Your task to perform on an android device: What's on my calendar today? Image 0: 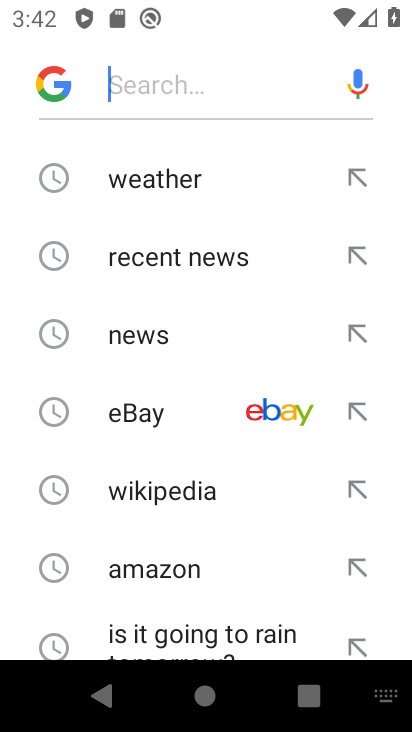
Step 0: press home button
Your task to perform on an android device: What's on my calendar today? Image 1: 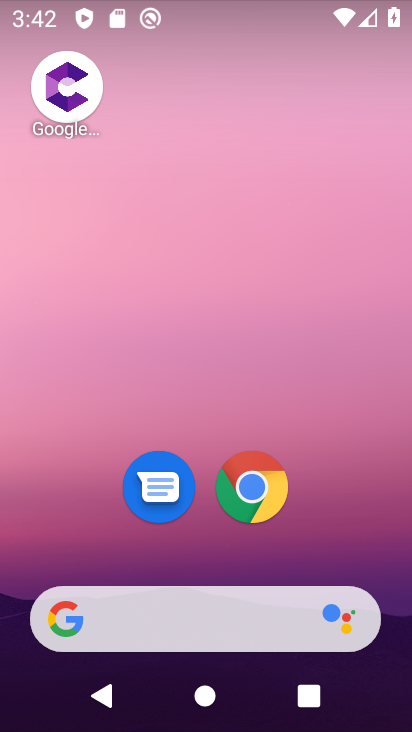
Step 1: drag from (203, 475) to (330, 5)
Your task to perform on an android device: What's on my calendar today? Image 2: 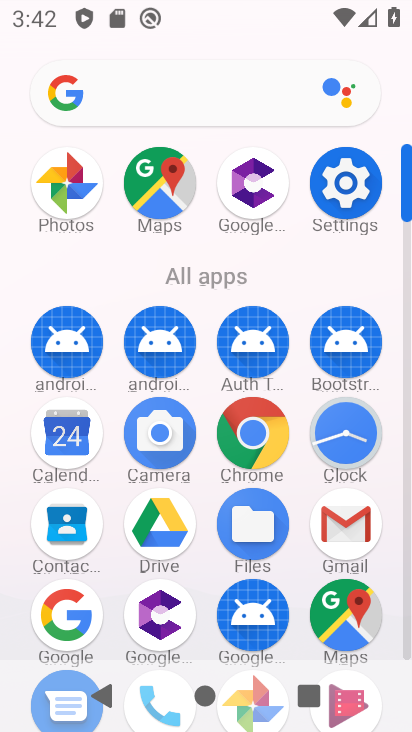
Step 2: click (65, 445)
Your task to perform on an android device: What's on my calendar today? Image 3: 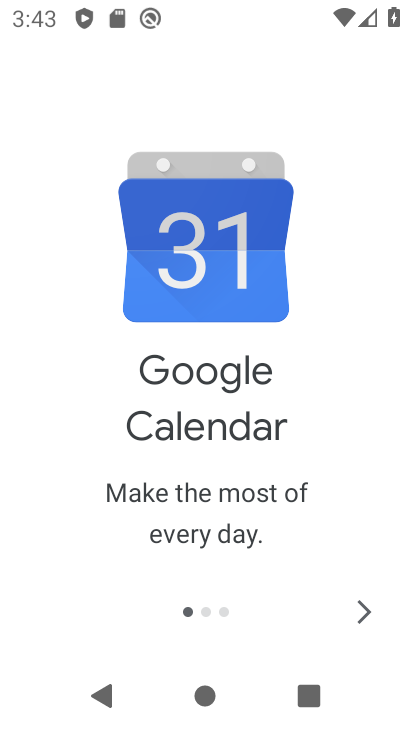
Step 3: click (366, 611)
Your task to perform on an android device: What's on my calendar today? Image 4: 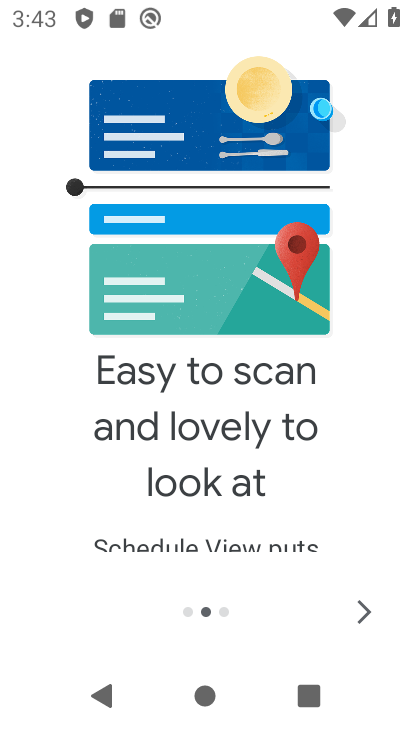
Step 4: click (366, 611)
Your task to perform on an android device: What's on my calendar today? Image 5: 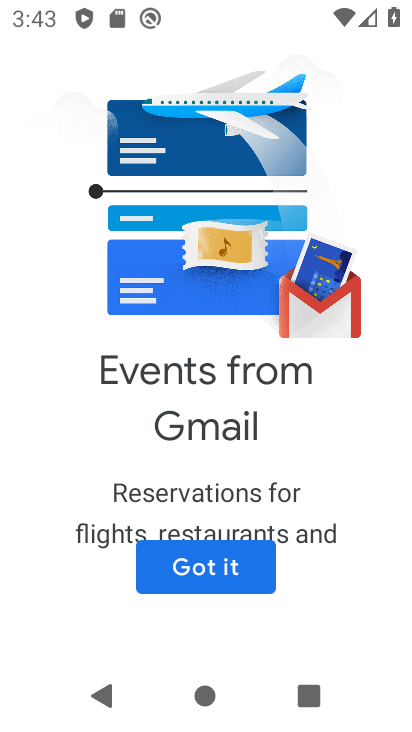
Step 5: click (209, 570)
Your task to perform on an android device: What's on my calendar today? Image 6: 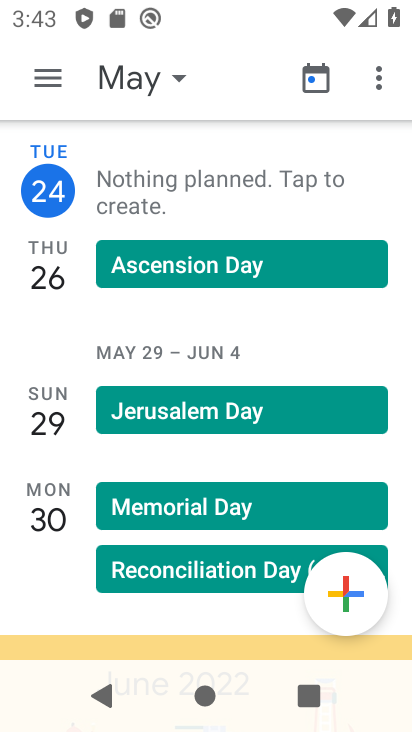
Step 6: task complete